Your task to perform on an android device: Do I have any events today? Image 0: 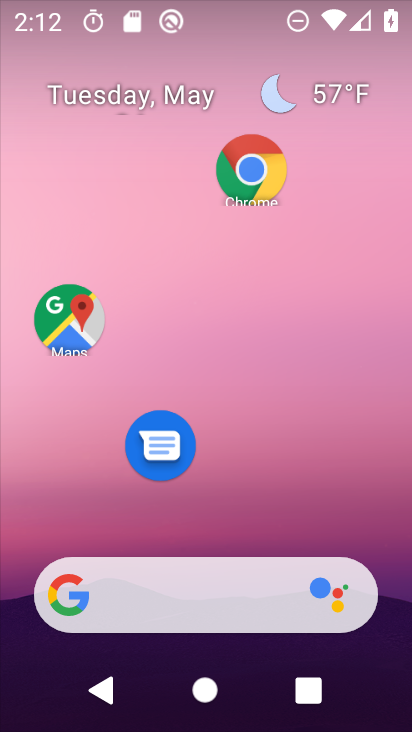
Step 0: drag from (237, 727) to (239, 140)
Your task to perform on an android device: Do I have any events today? Image 1: 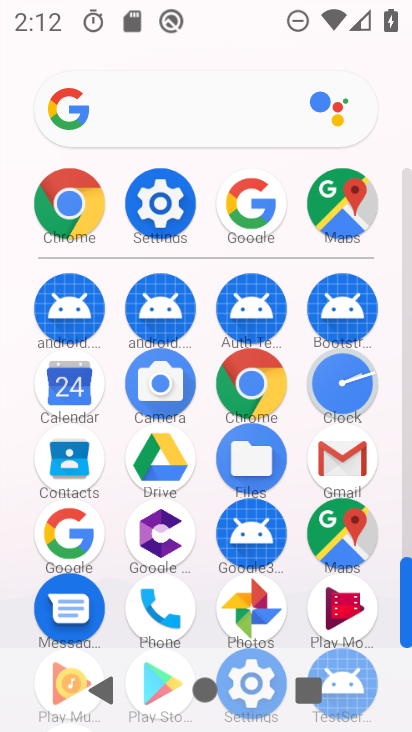
Step 1: drag from (204, 586) to (206, 245)
Your task to perform on an android device: Do I have any events today? Image 2: 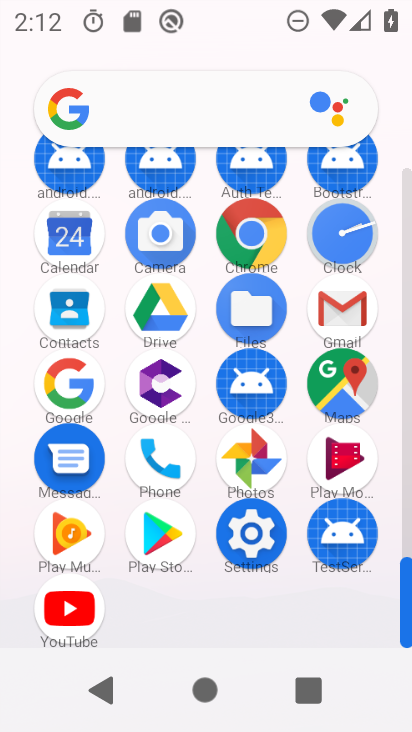
Step 2: click (72, 244)
Your task to perform on an android device: Do I have any events today? Image 3: 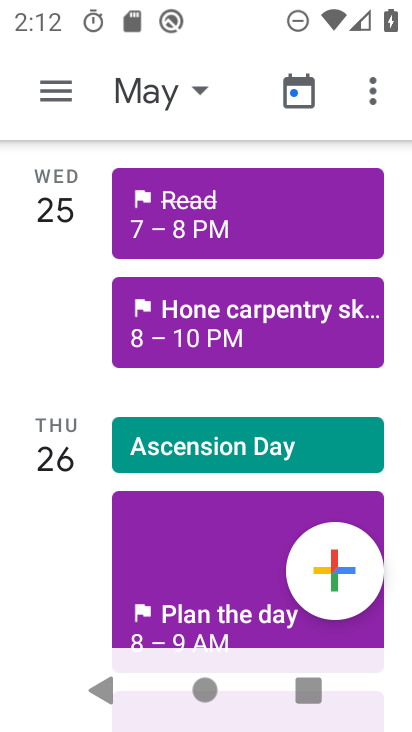
Step 3: click (148, 89)
Your task to perform on an android device: Do I have any events today? Image 4: 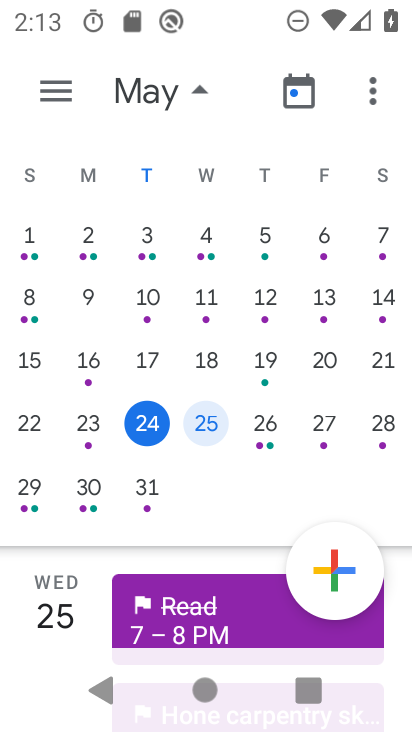
Step 4: click (139, 425)
Your task to perform on an android device: Do I have any events today? Image 5: 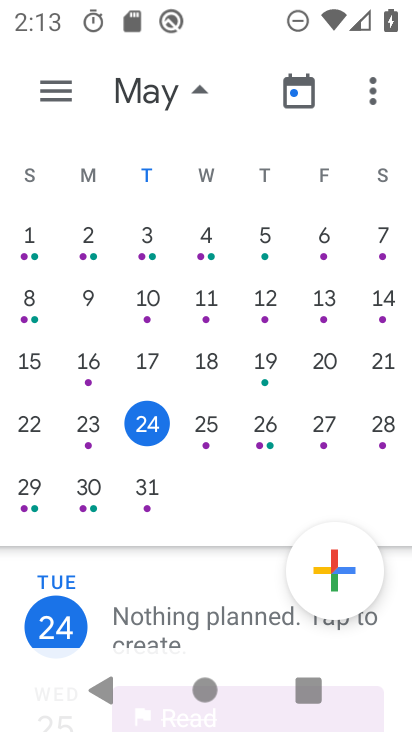
Step 5: click (195, 85)
Your task to perform on an android device: Do I have any events today? Image 6: 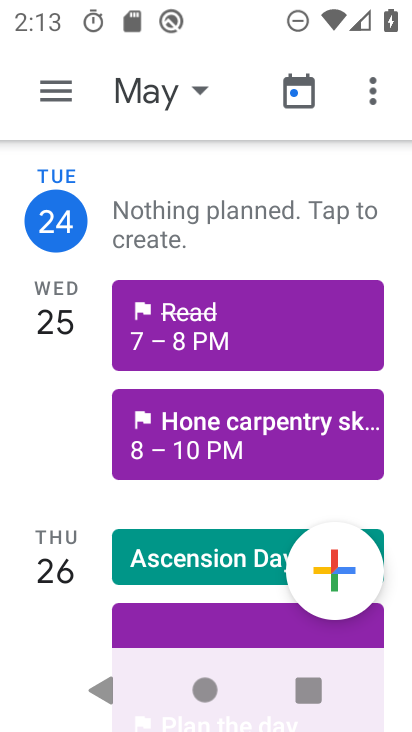
Step 6: task complete